Your task to perform on an android device: turn off location history Image 0: 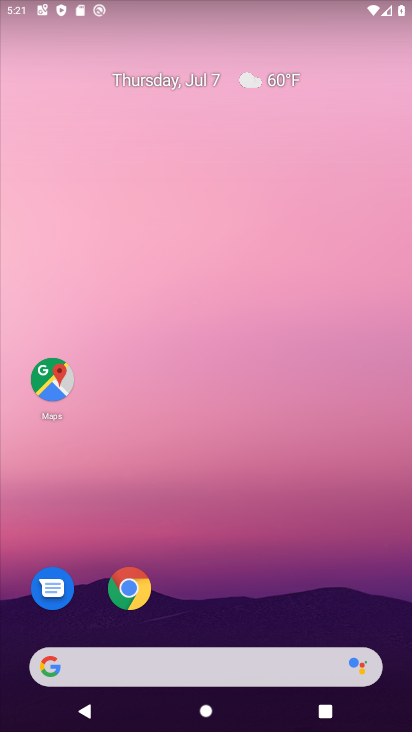
Step 0: drag from (199, 610) to (243, 22)
Your task to perform on an android device: turn off location history Image 1: 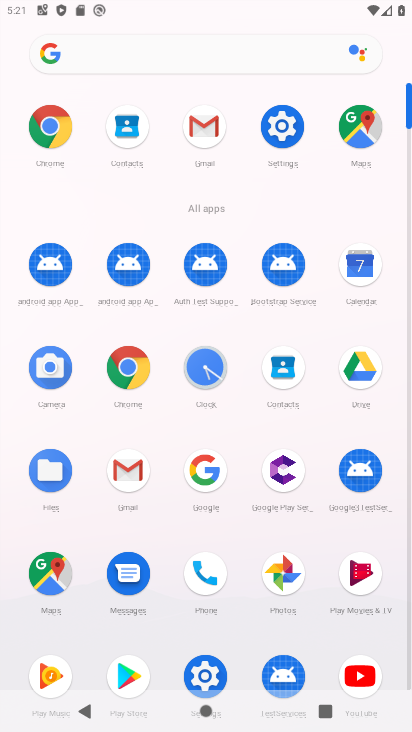
Step 1: click (286, 131)
Your task to perform on an android device: turn off location history Image 2: 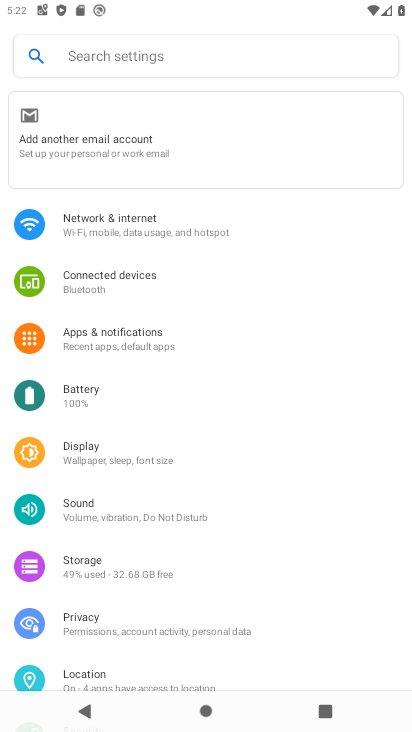
Step 2: click (98, 669)
Your task to perform on an android device: turn off location history Image 3: 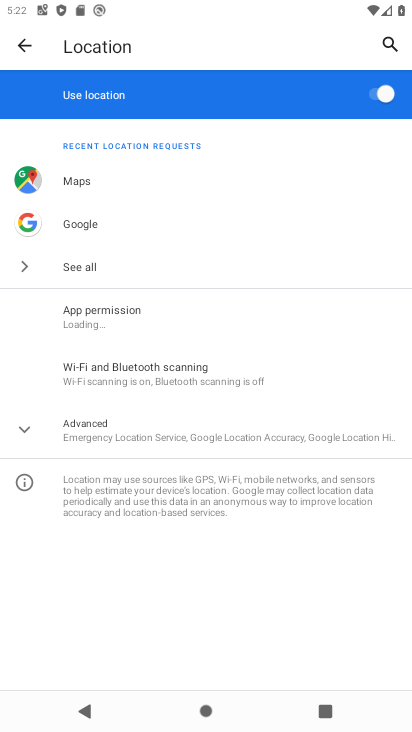
Step 3: click (135, 427)
Your task to perform on an android device: turn off location history Image 4: 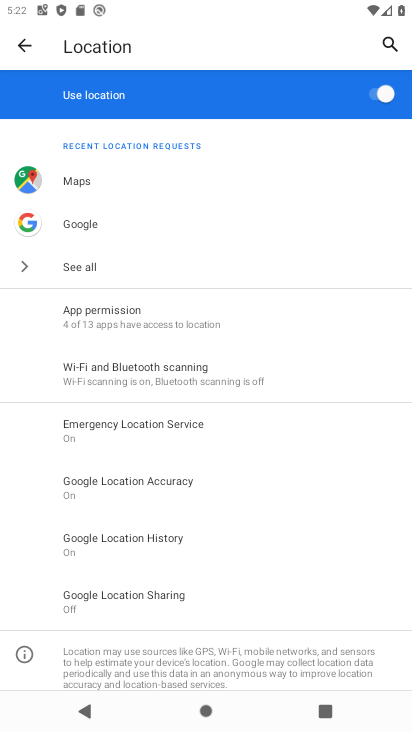
Step 4: click (165, 539)
Your task to perform on an android device: turn off location history Image 5: 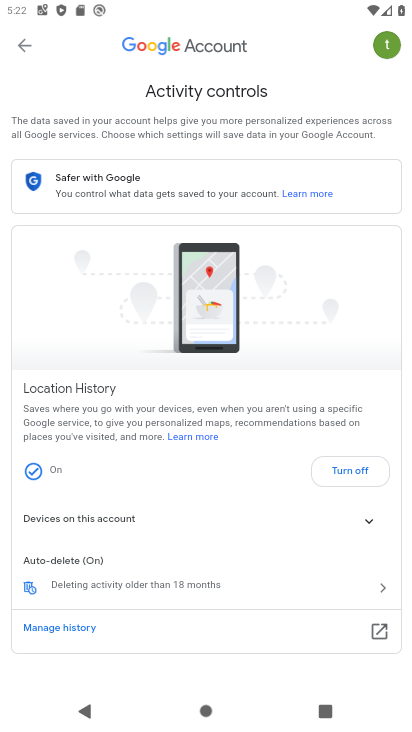
Step 5: click (347, 474)
Your task to perform on an android device: turn off location history Image 6: 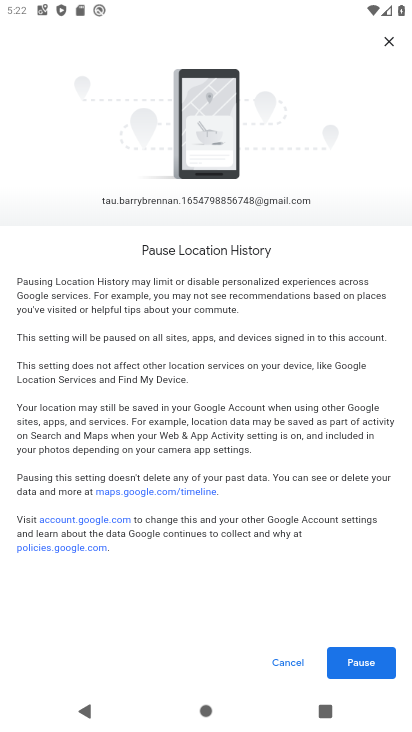
Step 6: click (358, 656)
Your task to perform on an android device: turn off location history Image 7: 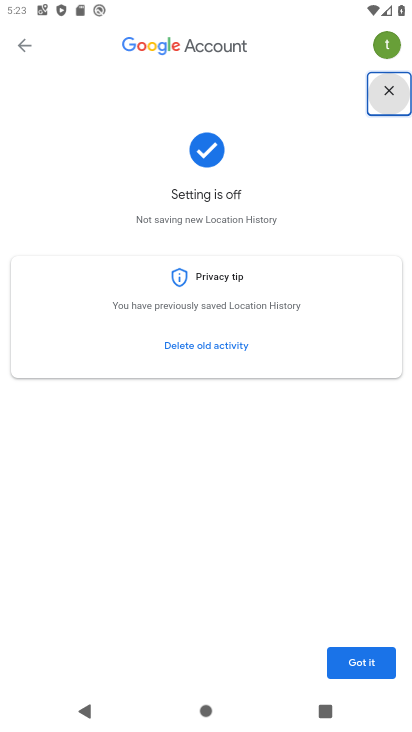
Step 7: click (358, 666)
Your task to perform on an android device: turn off location history Image 8: 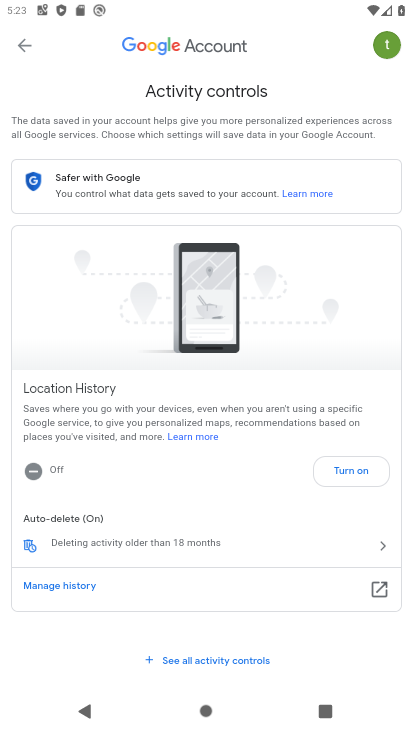
Step 8: task complete